Your task to perform on an android device: Search for Italian restaurants on Maps Image 0: 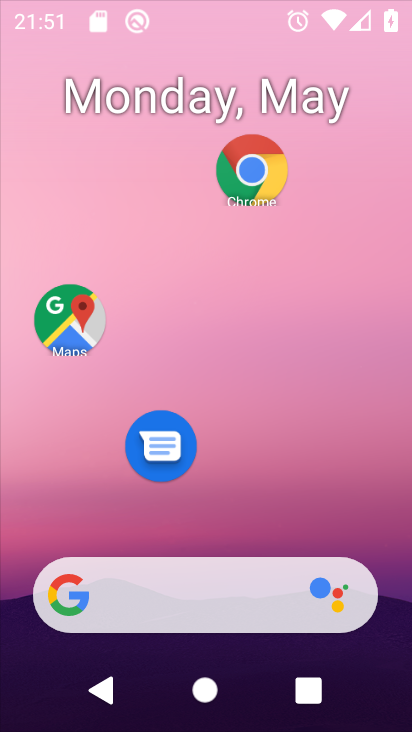
Step 0: press home button
Your task to perform on an android device: Search for Italian restaurants on Maps Image 1: 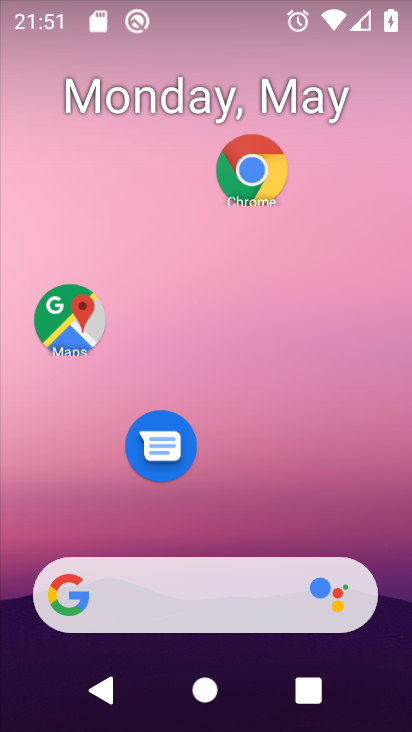
Step 1: click (71, 314)
Your task to perform on an android device: Search for Italian restaurants on Maps Image 2: 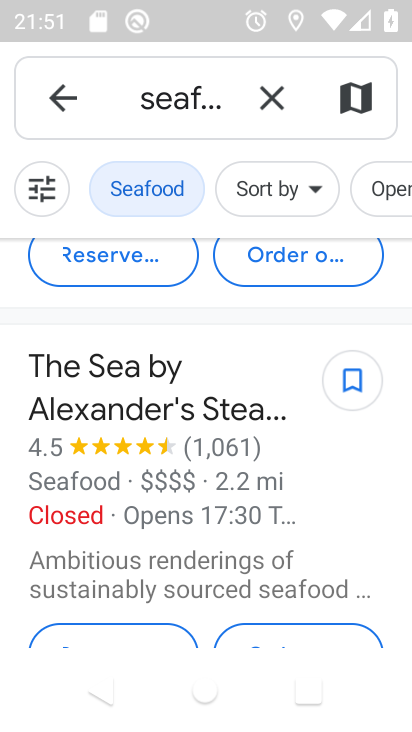
Step 2: click (269, 101)
Your task to perform on an android device: Search for Italian restaurants on Maps Image 3: 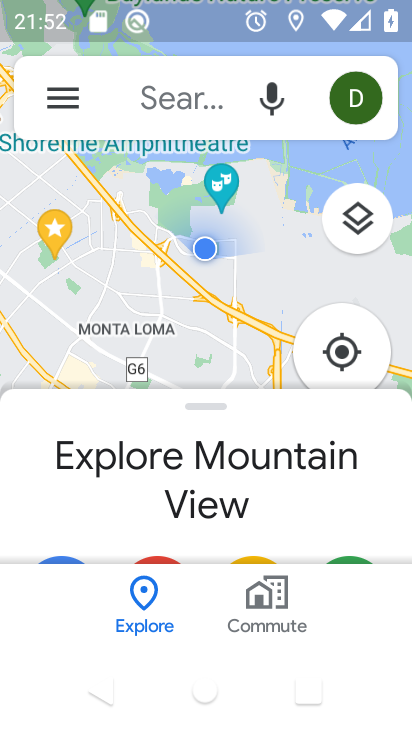
Step 3: type "italian"
Your task to perform on an android device: Search for Italian restaurants on Maps Image 4: 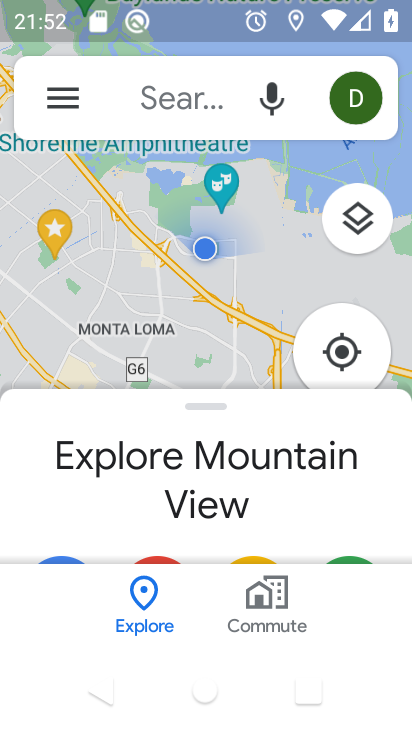
Step 4: click (155, 83)
Your task to perform on an android device: Search for Italian restaurants on Maps Image 5: 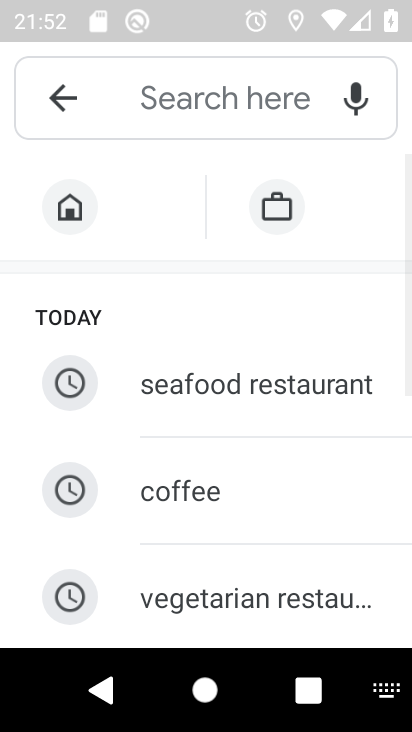
Step 5: drag from (234, 558) to (266, 132)
Your task to perform on an android device: Search for Italian restaurants on Maps Image 6: 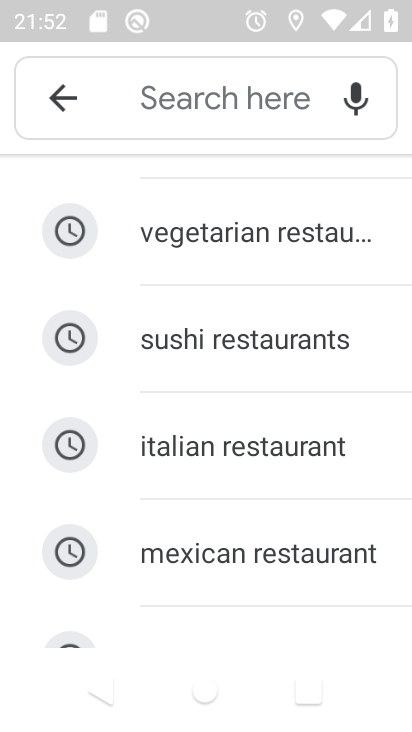
Step 6: click (222, 466)
Your task to perform on an android device: Search for Italian restaurants on Maps Image 7: 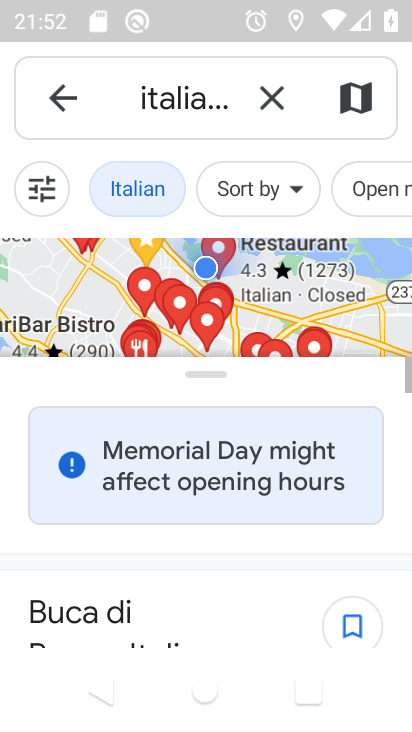
Step 7: task complete